Your task to perform on an android device: Check my gmail Image 0: 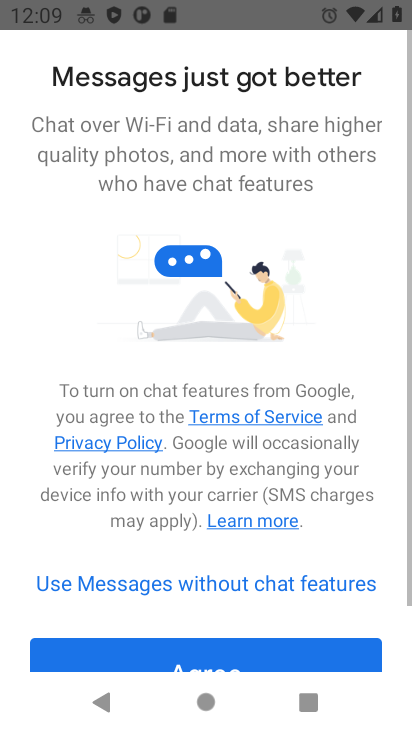
Step 0: press home button
Your task to perform on an android device: Check my gmail Image 1: 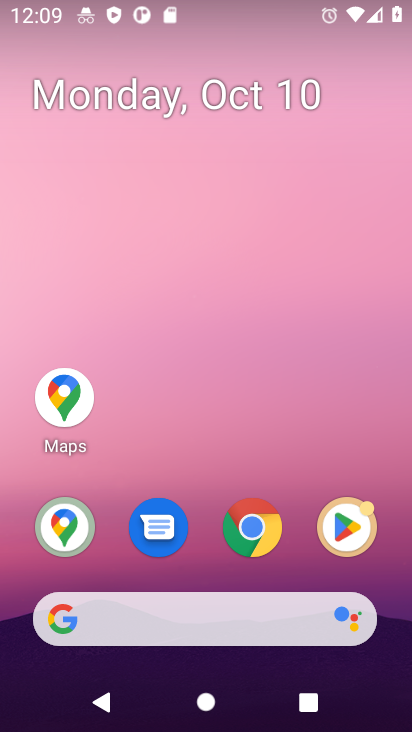
Step 1: drag from (213, 560) to (233, 195)
Your task to perform on an android device: Check my gmail Image 2: 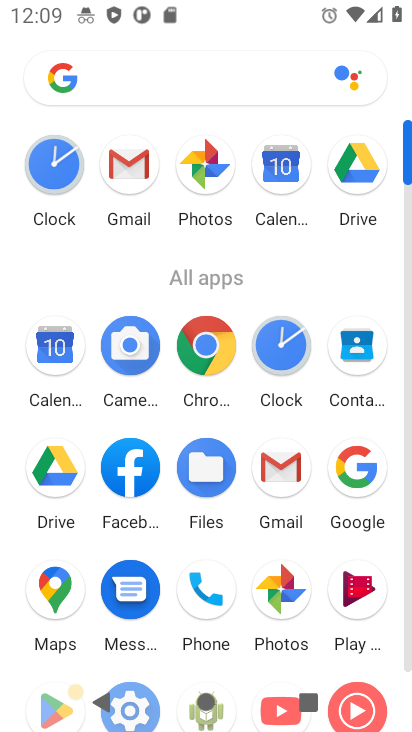
Step 2: click (285, 461)
Your task to perform on an android device: Check my gmail Image 3: 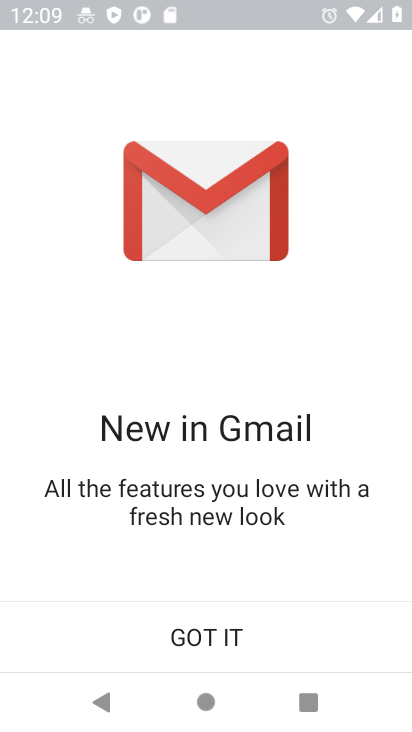
Step 3: click (219, 630)
Your task to perform on an android device: Check my gmail Image 4: 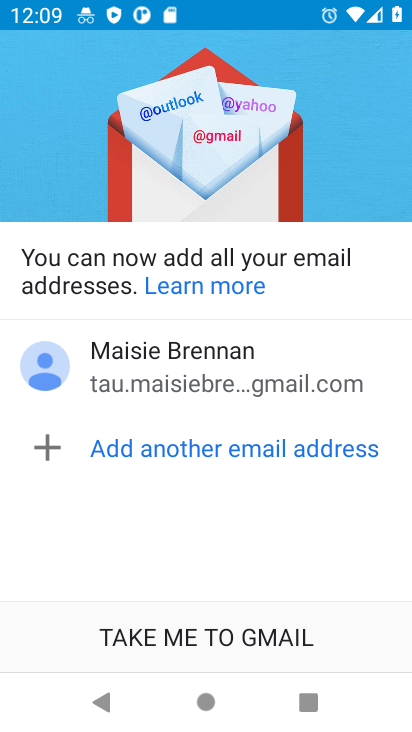
Step 4: click (211, 632)
Your task to perform on an android device: Check my gmail Image 5: 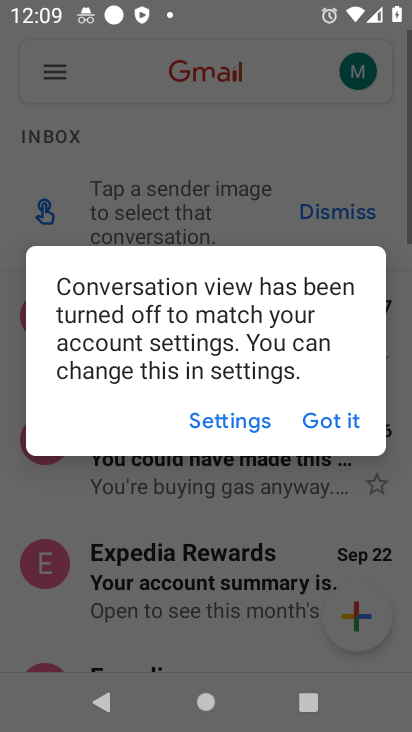
Step 5: click (338, 434)
Your task to perform on an android device: Check my gmail Image 6: 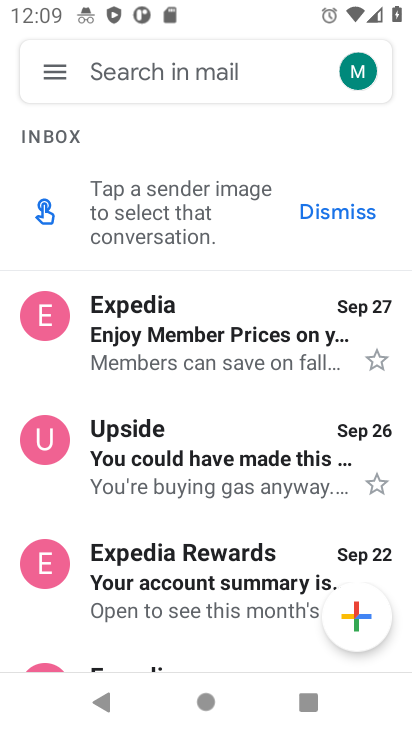
Step 6: task complete